Your task to perform on an android device: delete the emails in spam in the gmail app Image 0: 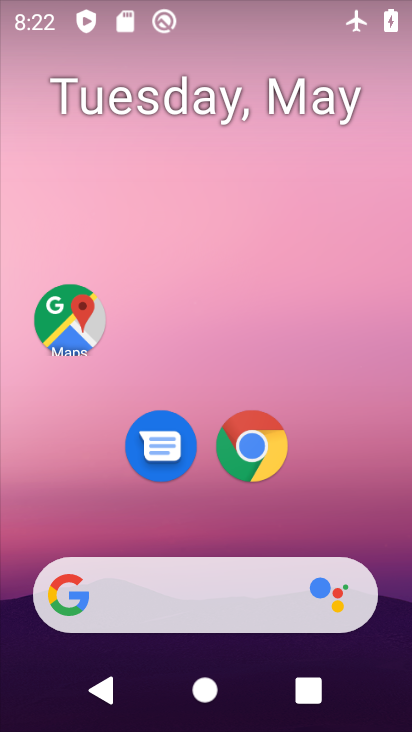
Step 0: drag from (386, 539) to (404, 209)
Your task to perform on an android device: delete the emails in spam in the gmail app Image 1: 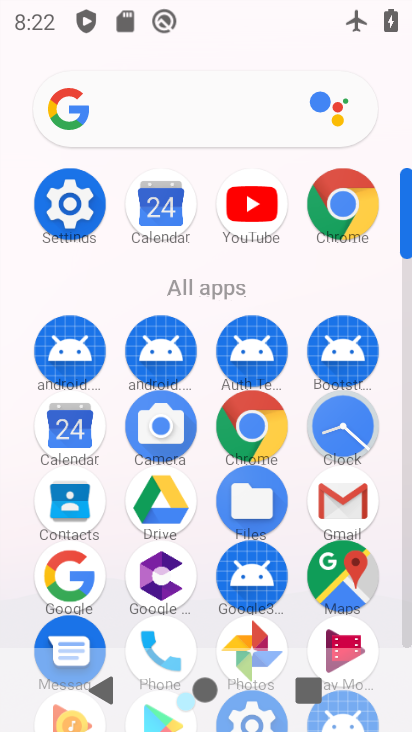
Step 1: click (357, 510)
Your task to perform on an android device: delete the emails in spam in the gmail app Image 2: 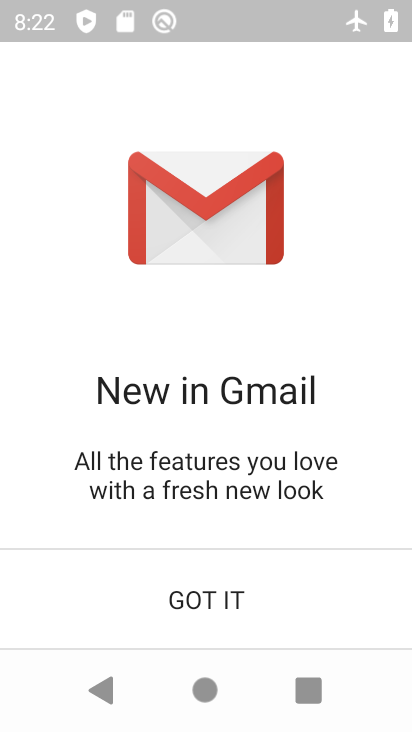
Step 2: click (309, 585)
Your task to perform on an android device: delete the emails in spam in the gmail app Image 3: 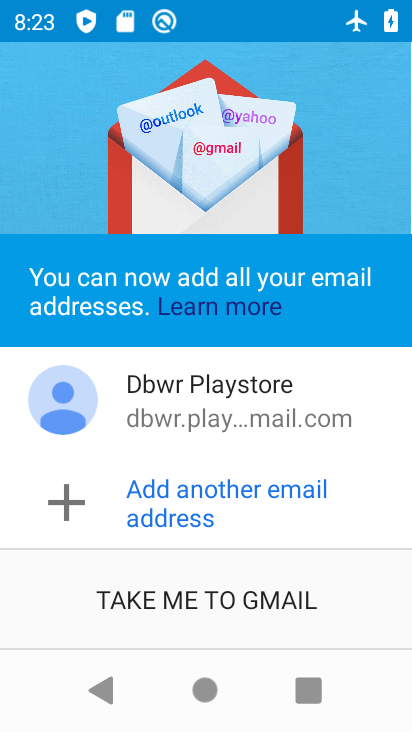
Step 3: click (306, 610)
Your task to perform on an android device: delete the emails in spam in the gmail app Image 4: 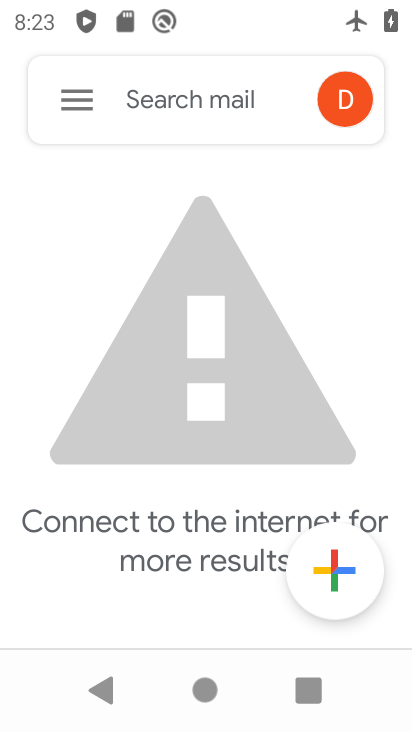
Step 4: task complete